Your task to perform on an android device: Go to Android settings Image 0: 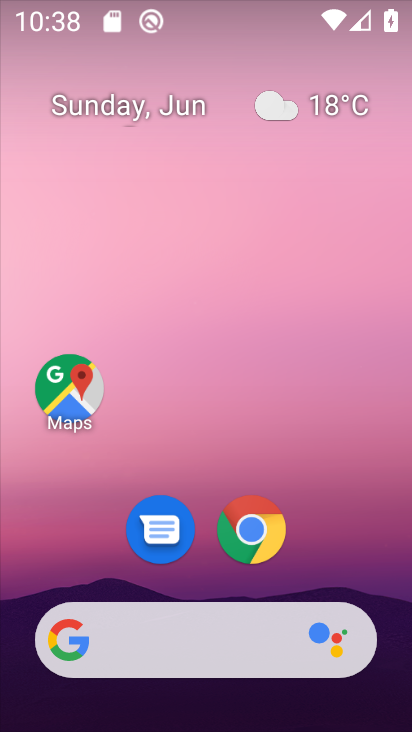
Step 0: drag from (110, 510) to (245, 122)
Your task to perform on an android device: Go to Android settings Image 1: 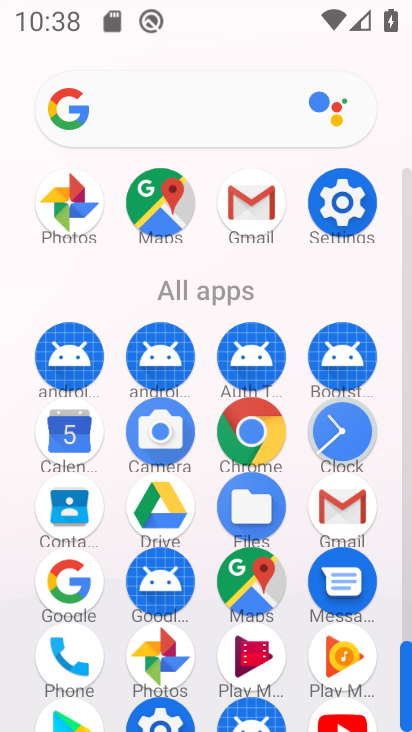
Step 1: drag from (191, 534) to (270, 210)
Your task to perform on an android device: Go to Android settings Image 2: 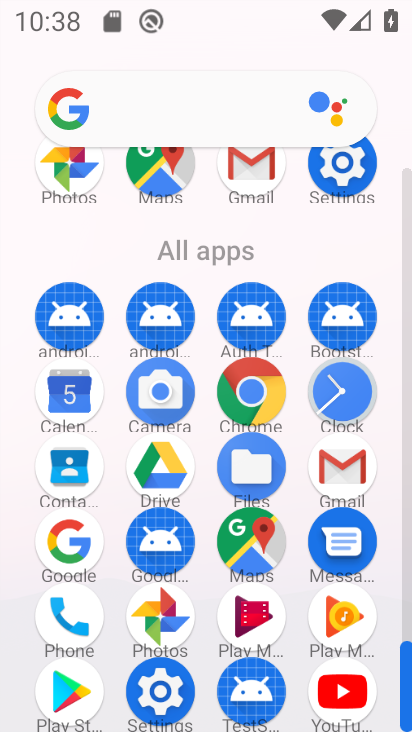
Step 2: click (169, 685)
Your task to perform on an android device: Go to Android settings Image 3: 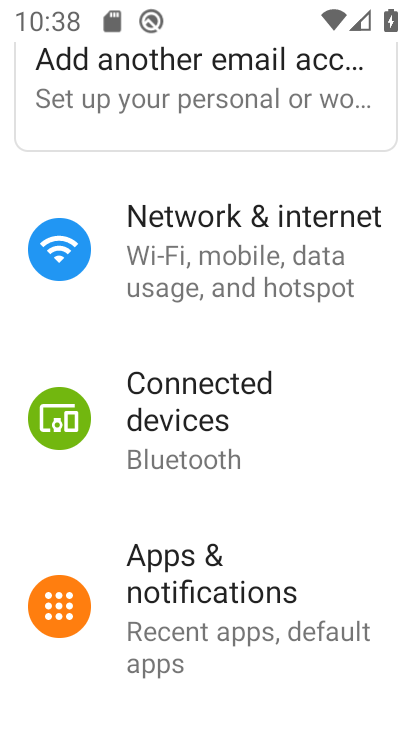
Step 3: task complete